Your task to perform on an android device: see creations saved in the google photos Image 0: 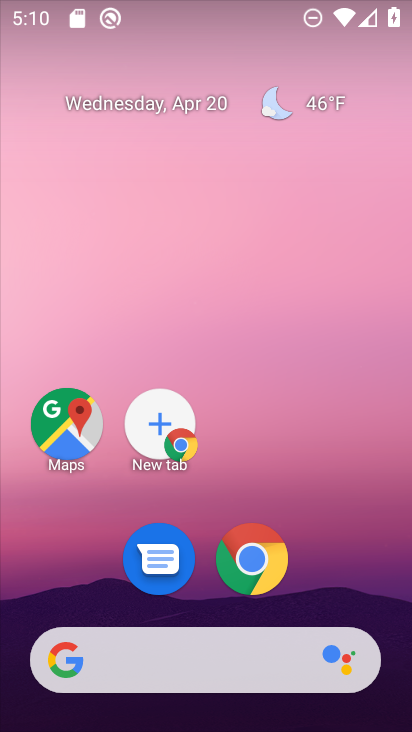
Step 0: drag from (317, 589) to (318, 168)
Your task to perform on an android device: see creations saved in the google photos Image 1: 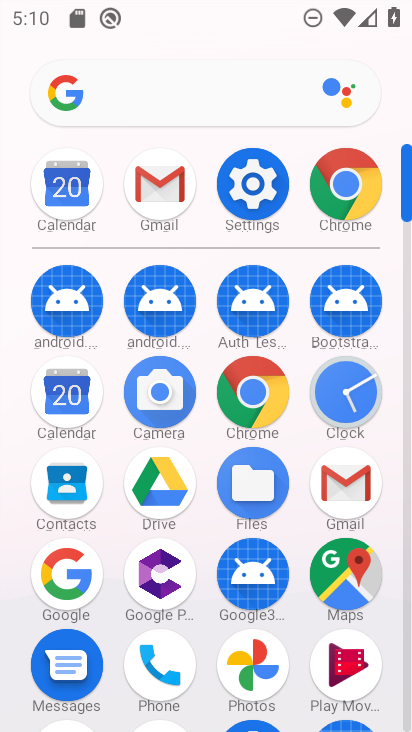
Step 1: click (255, 645)
Your task to perform on an android device: see creations saved in the google photos Image 2: 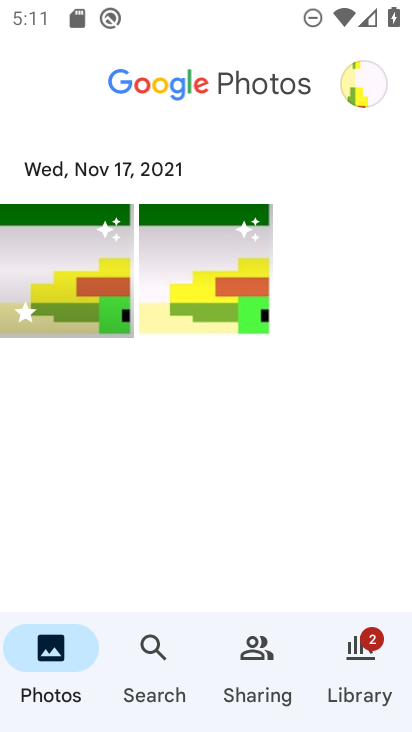
Step 2: task complete